Your task to perform on an android device: Empty the shopping cart on target. Add "bose quietcomfort 35" to the cart on target Image 0: 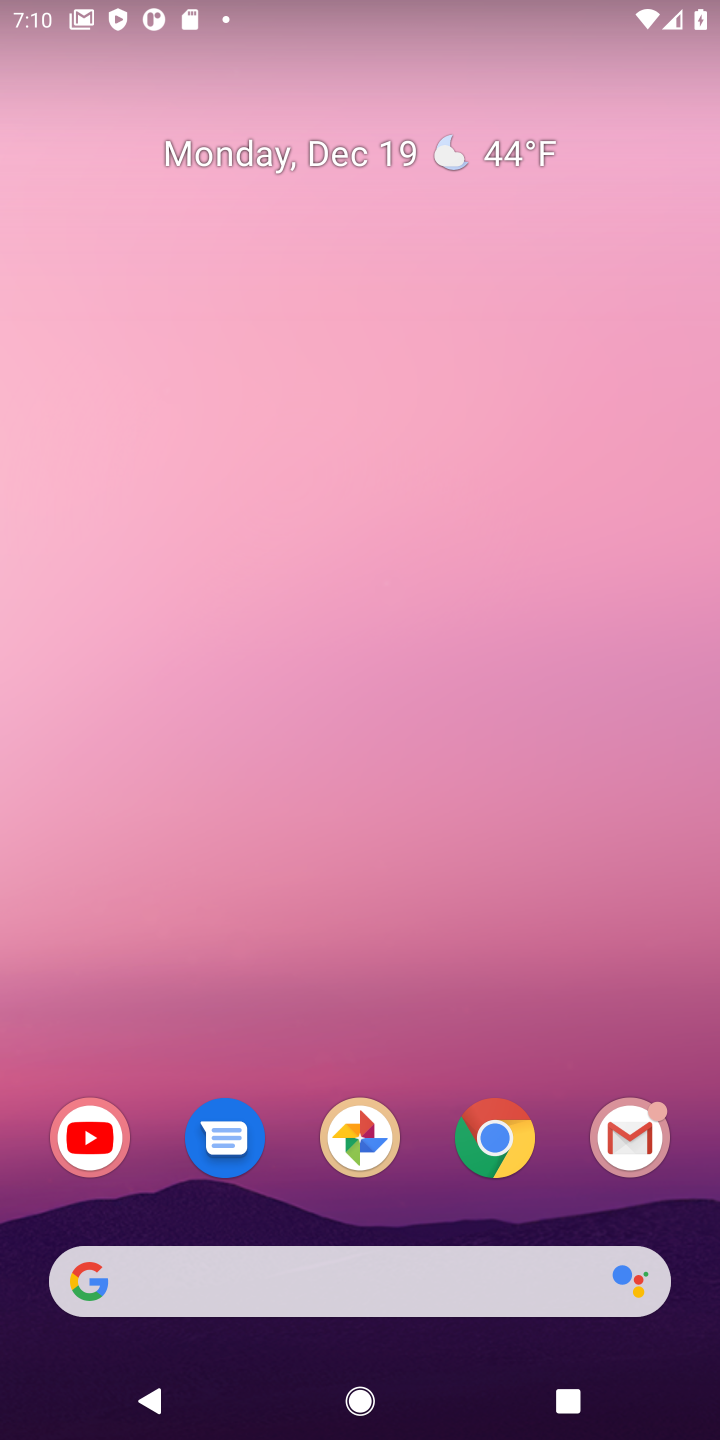
Step 0: click (514, 1146)
Your task to perform on an android device: Empty the shopping cart on target. Add "bose quietcomfort 35" to the cart on target Image 1: 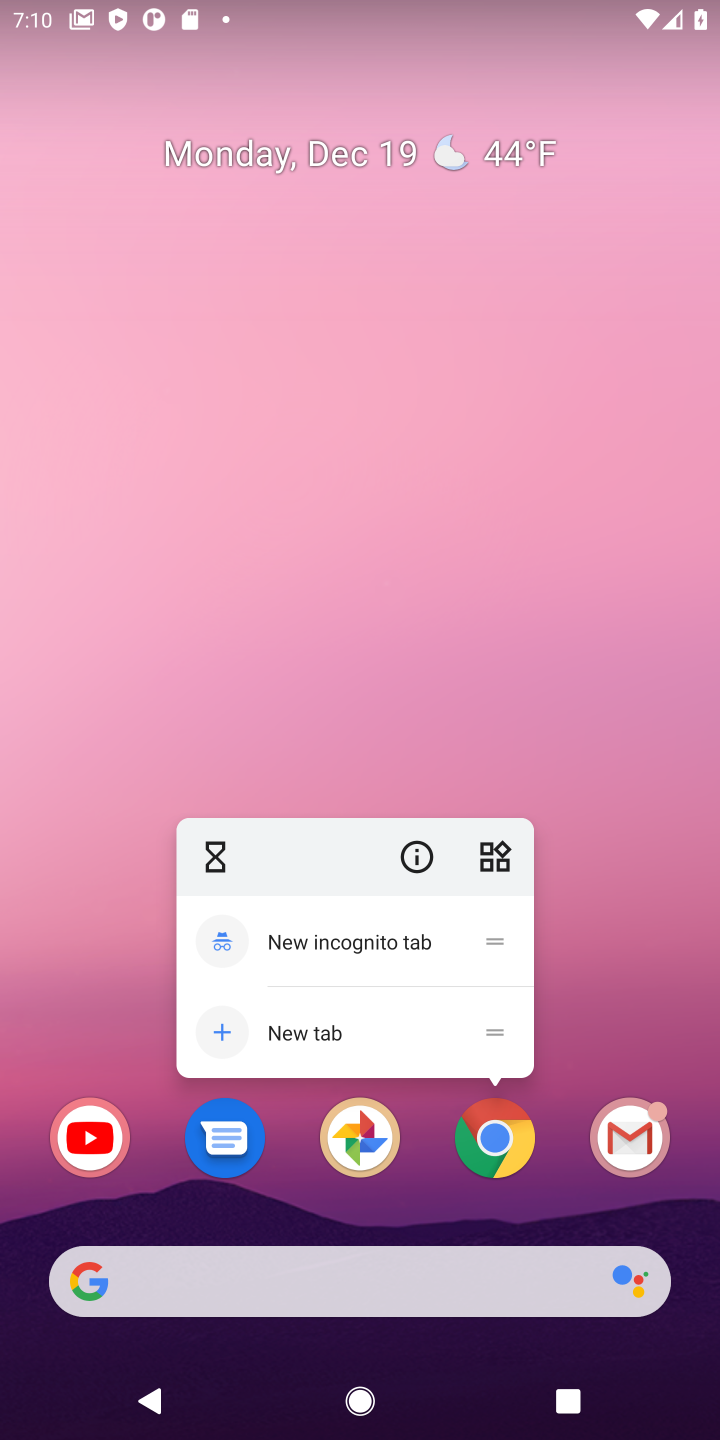
Step 1: click (493, 1140)
Your task to perform on an android device: Empty the shopping cart on target. Add "bose quietcomfort 35" to the cart on target Image 2: 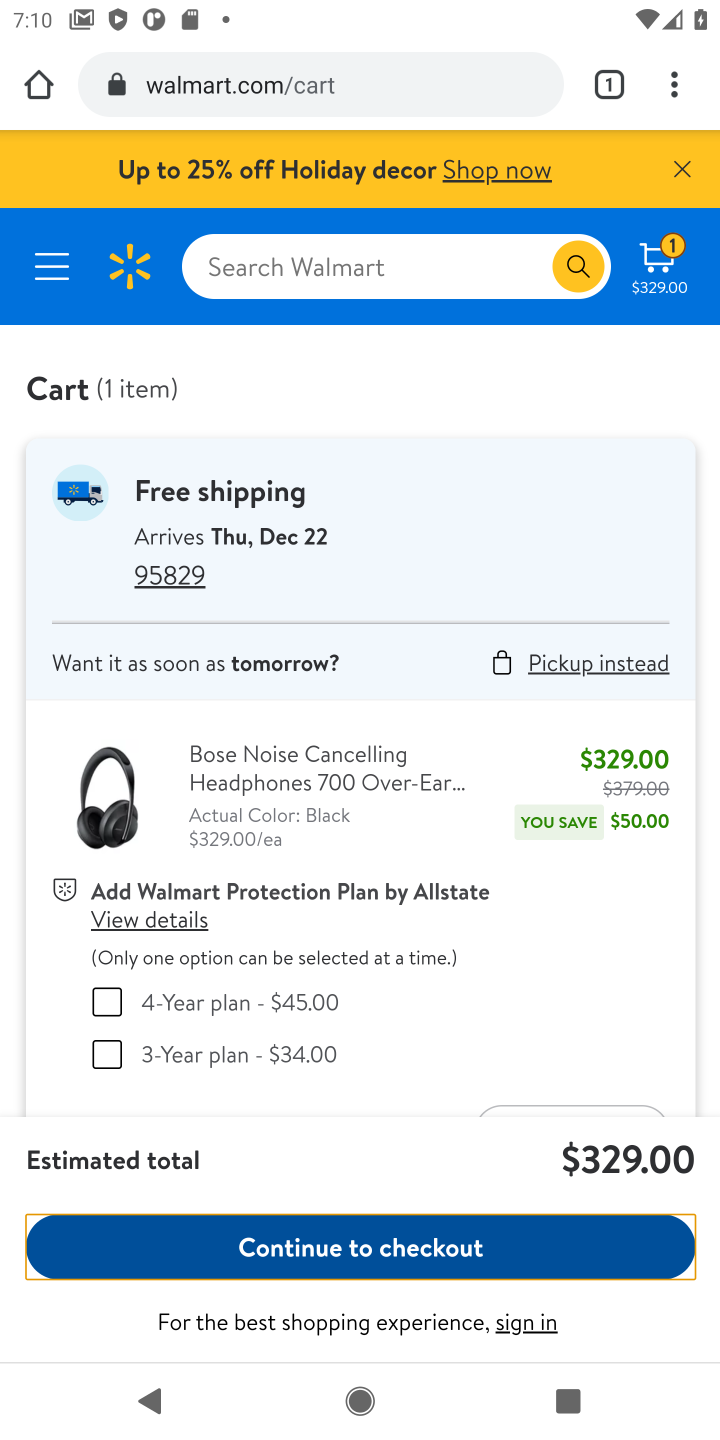
Step 2: click (331, 91)
Your task to perform on an android device: Empty the shopping cart on target. Add "bose quietcomfort 35" to the cart on target Image 3: 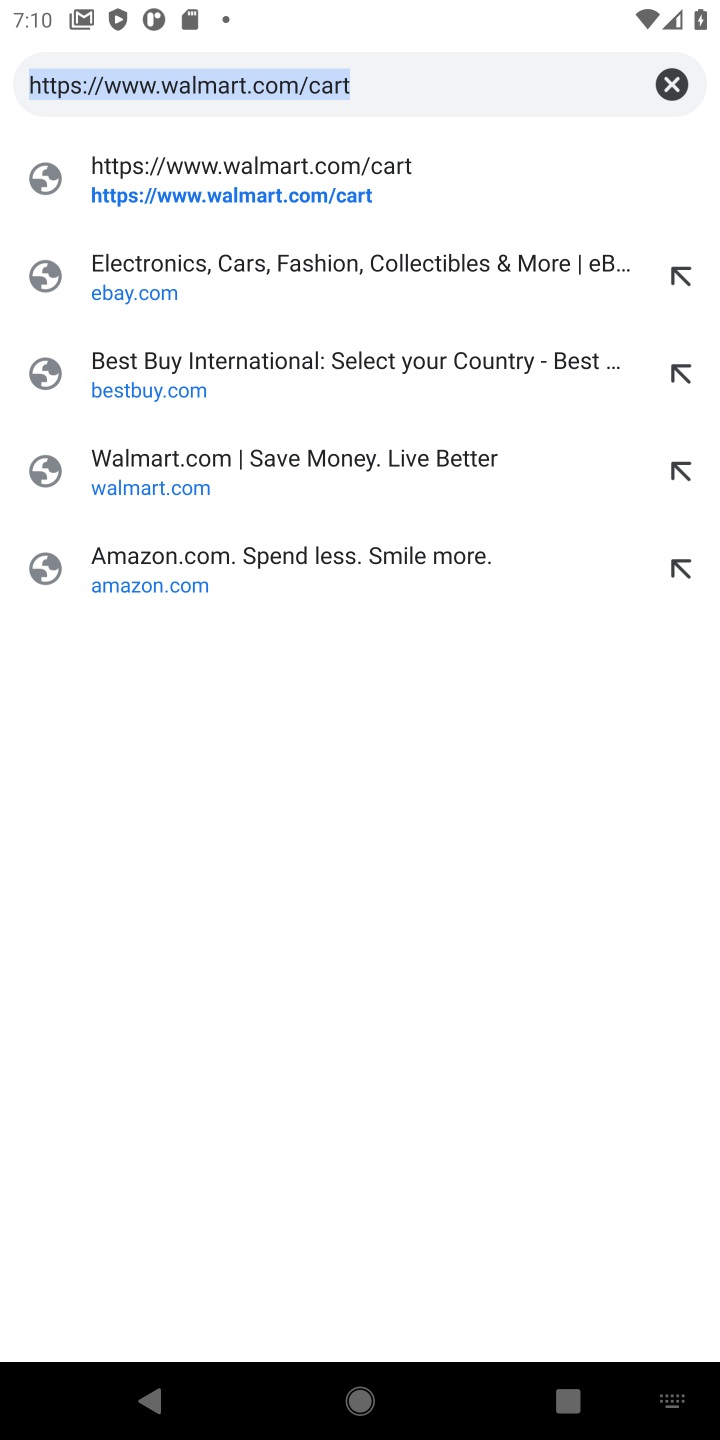
Step 3: type "TARGET"
Your task to perform on an android device: Empty the shopping cart on target. Add "bose quietcomfort 35" to the cart on target Image 4: 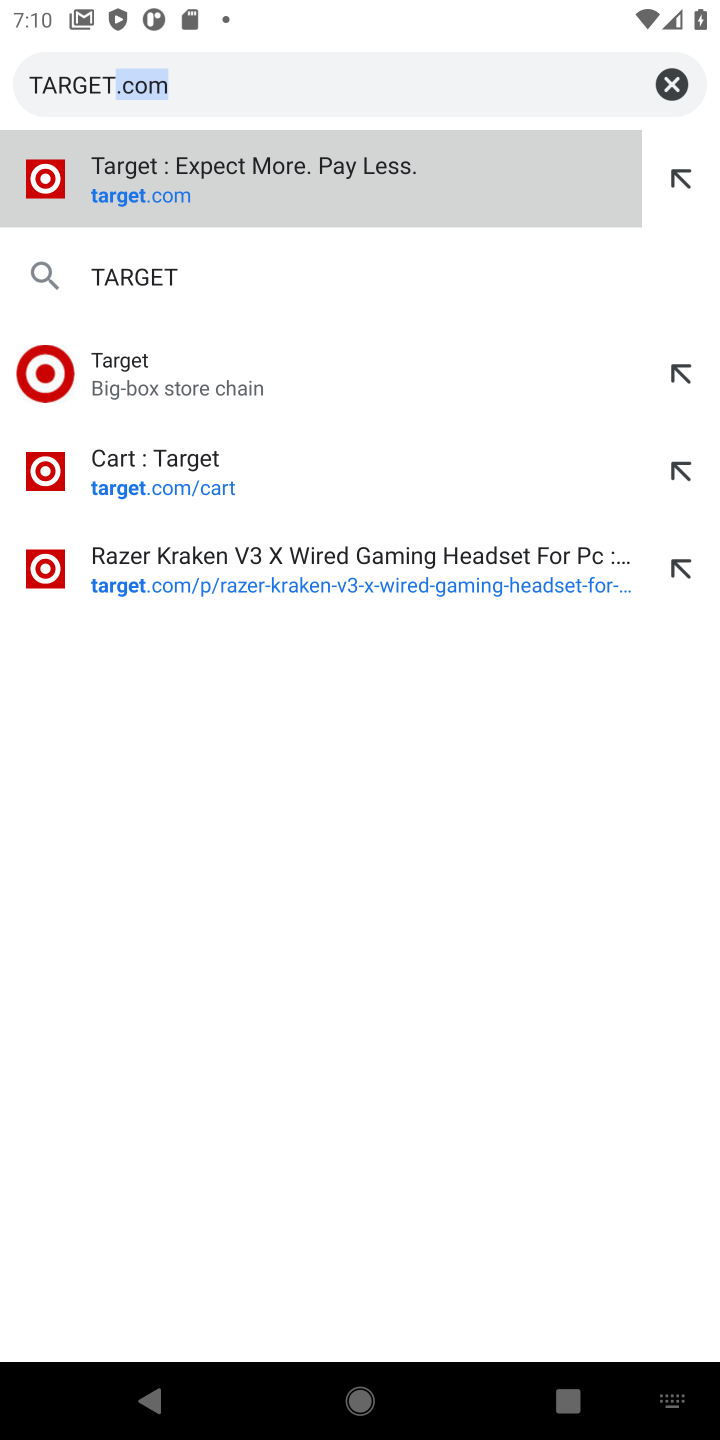
Step 4: click (307, 205)
Your task to perform on an android device: Empty the shopping cart on target. Add "bose quietcomfort 35" to the cart on target Image 5: 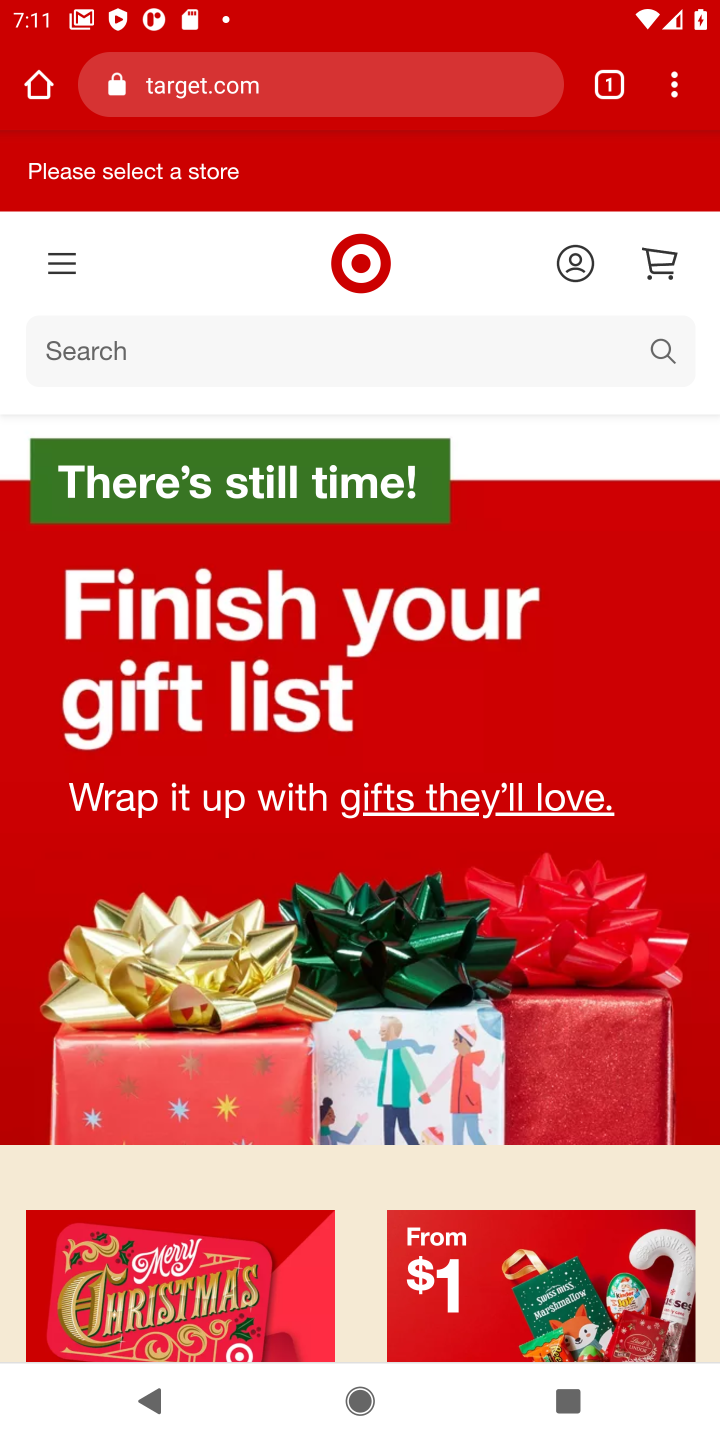
Step 5: click (440, 351)
Your task to perform on an android device: Empty the shopping cart on target. Add "bose quietcomfort 35" to the cart on target Image 6: 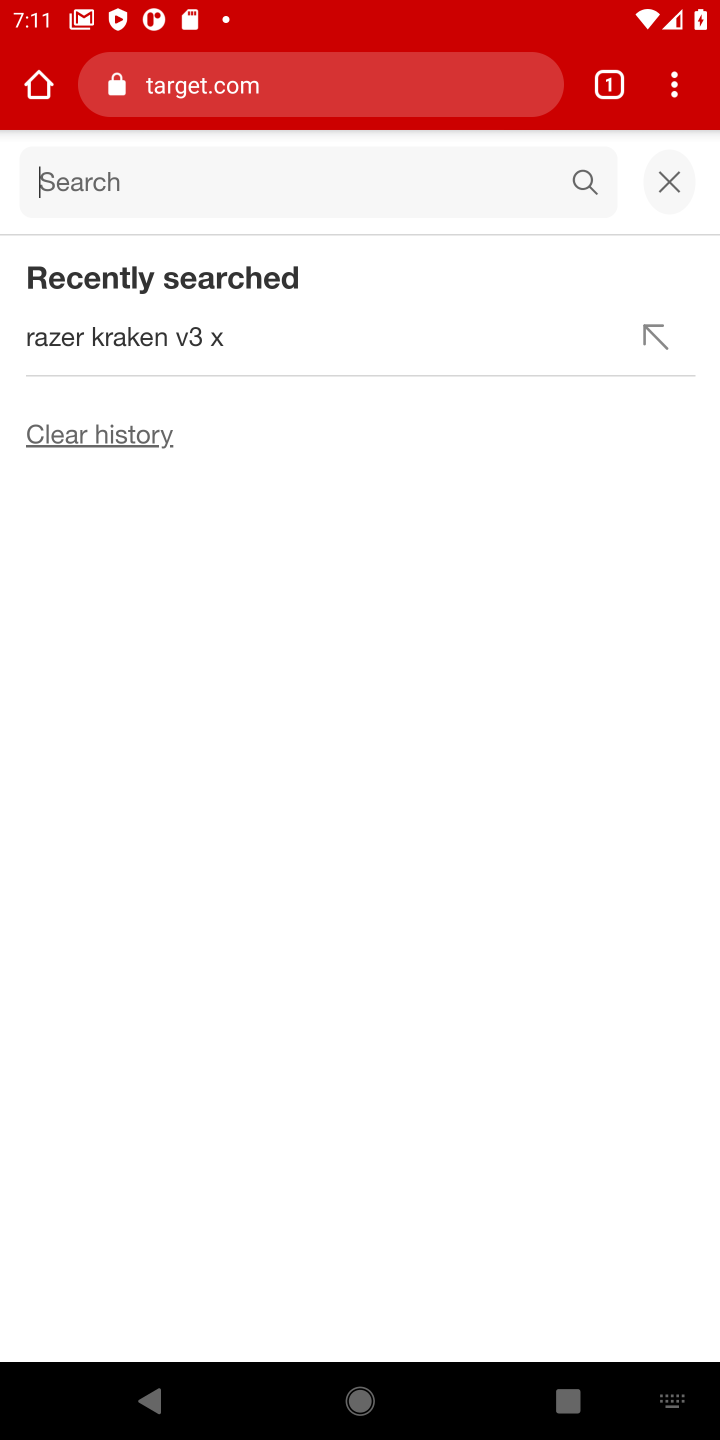
Step 6: type "bose quietcomfort 35"
Your task to perform on an android device: Empty the shopping cart on target. Add "bose quietcomfort 35" to the cart on target Image 7: 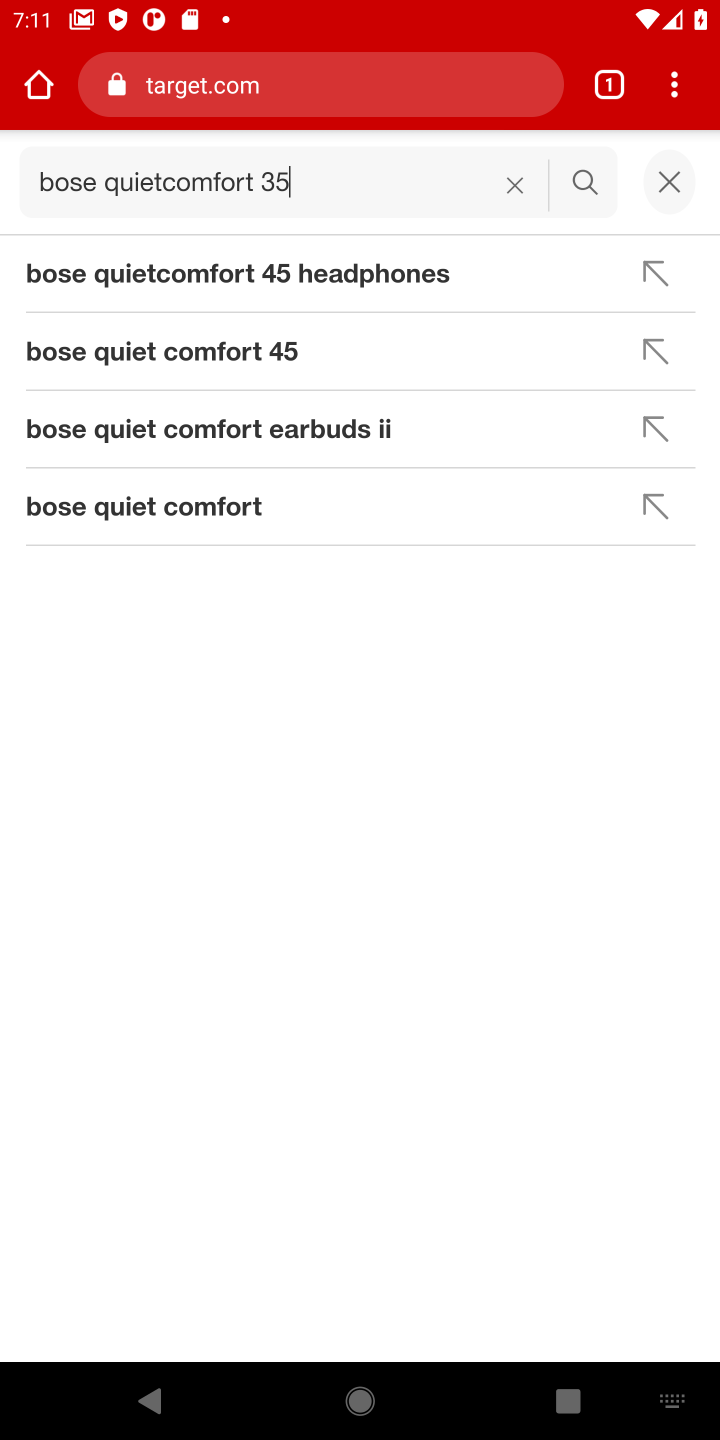
Step 7: click (579, 183)
Your task to perform on an android device: Empty the shopping cart on target. Add "bose quietcomfort 35" to the cart on target Image 8: 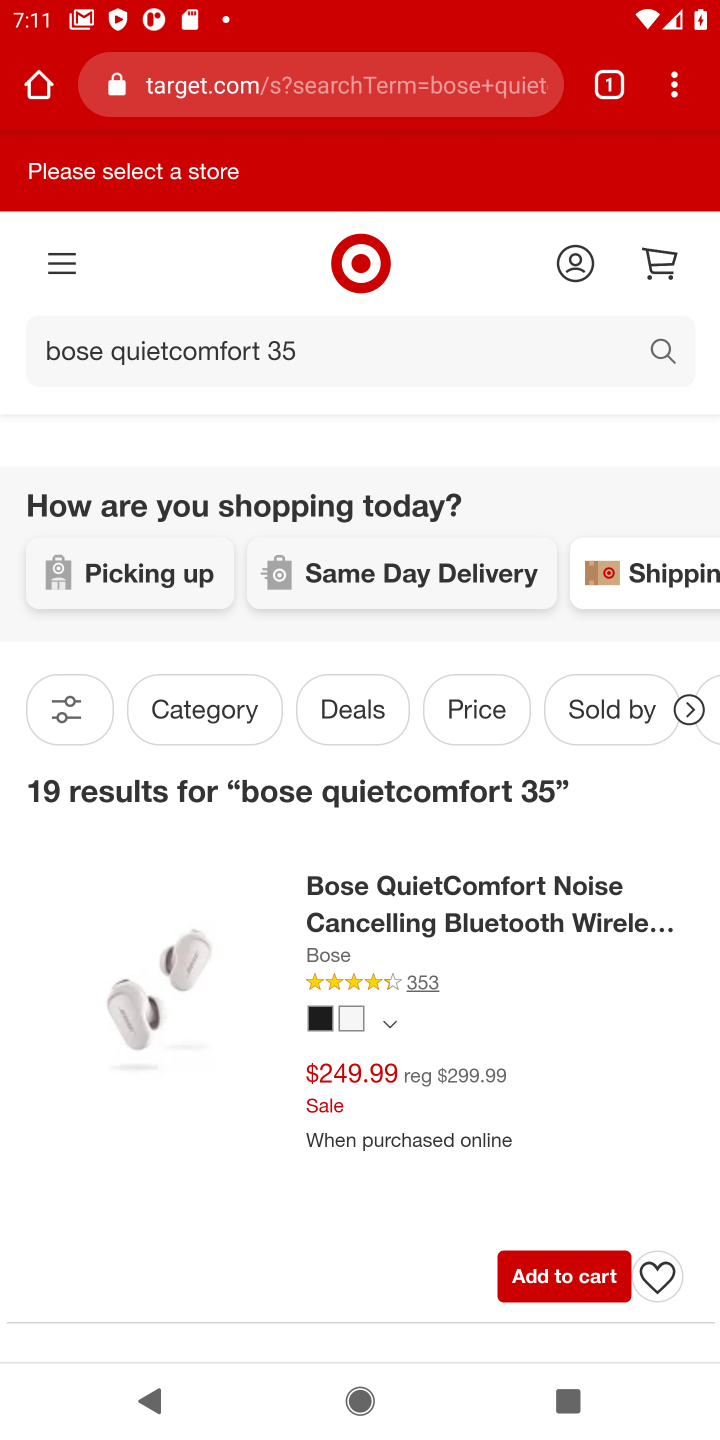
Step 8: click (564, 1280)
Your task to perform on an android device: Empty the shopping cart on target. Add "bose quietcomfort 35" to the cart on target Image 9: 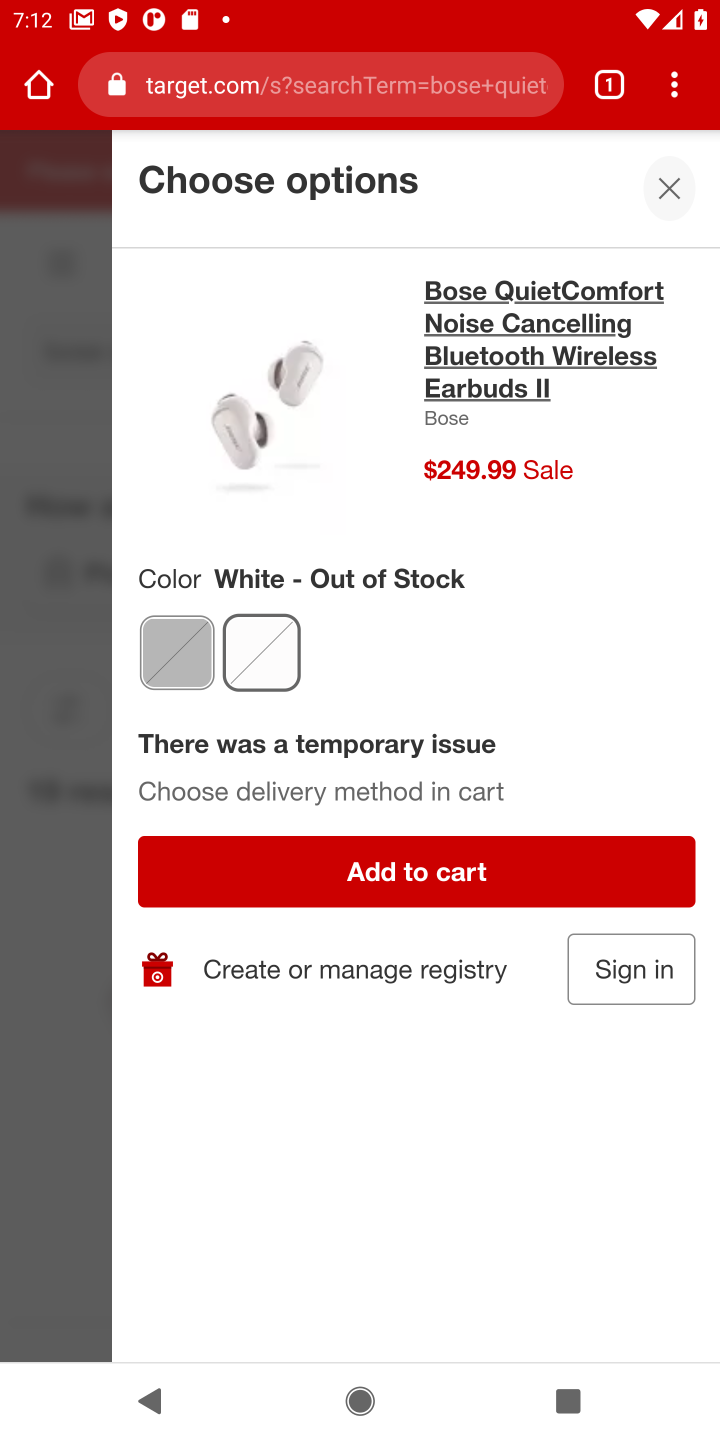
Step 9: click (490, 879)
Your task to perform on an android device: Empty the shopping cart on target. Add "bose quietcomfort 35" to the cart on target Image 10: 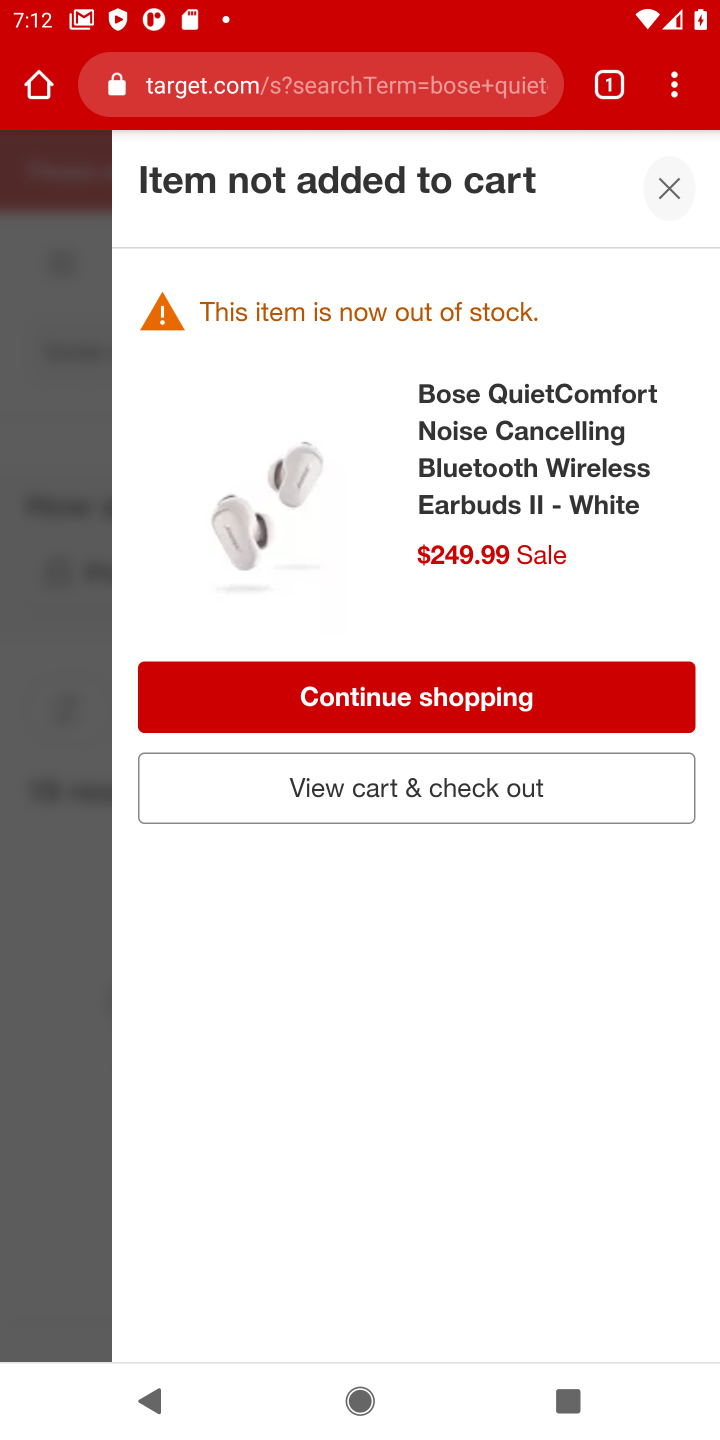
Step 10: click (489, 799)
Your task to perform on an android device: Empty the shopping cart on target. Add "bose quietcomfort 35" to the cart on target Image 11: 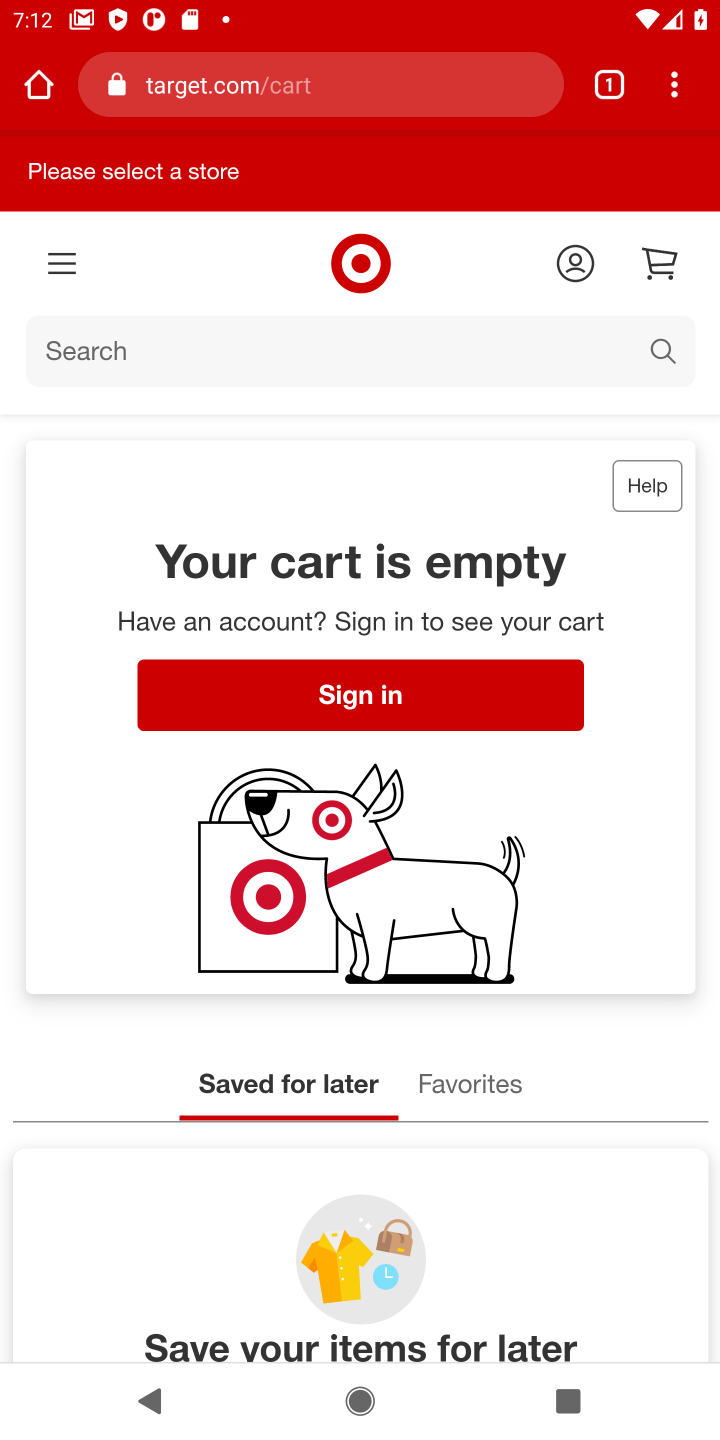
Step 11: click (557, 361)
Your task to perform on an android device: Empty the shopping cart on target. Add "bose quietcomfort 35" to the cart on target Image 12: 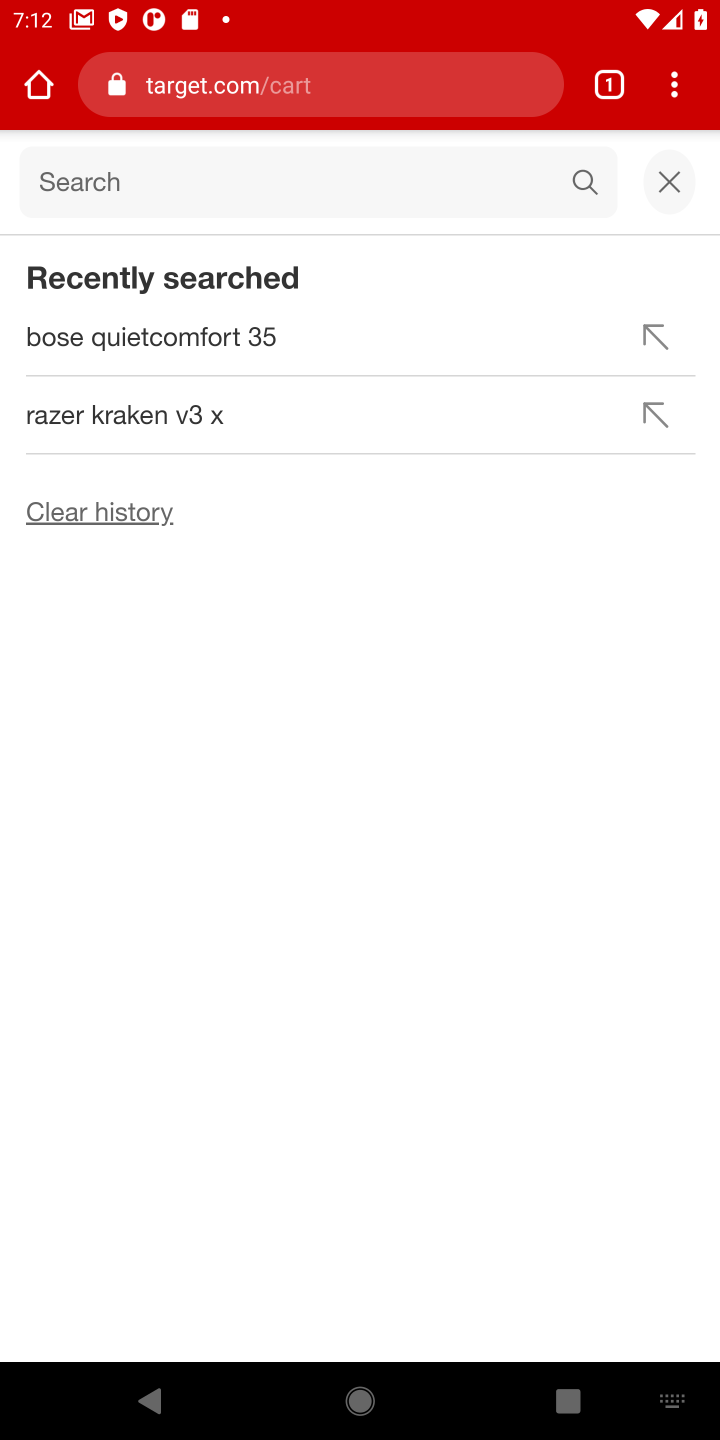
Step 12: click (674, 167)
Your task to perform on an android device: Empty the shopping cart on target. Add "bose quietcomfort 35" to the cart on target Image 13: 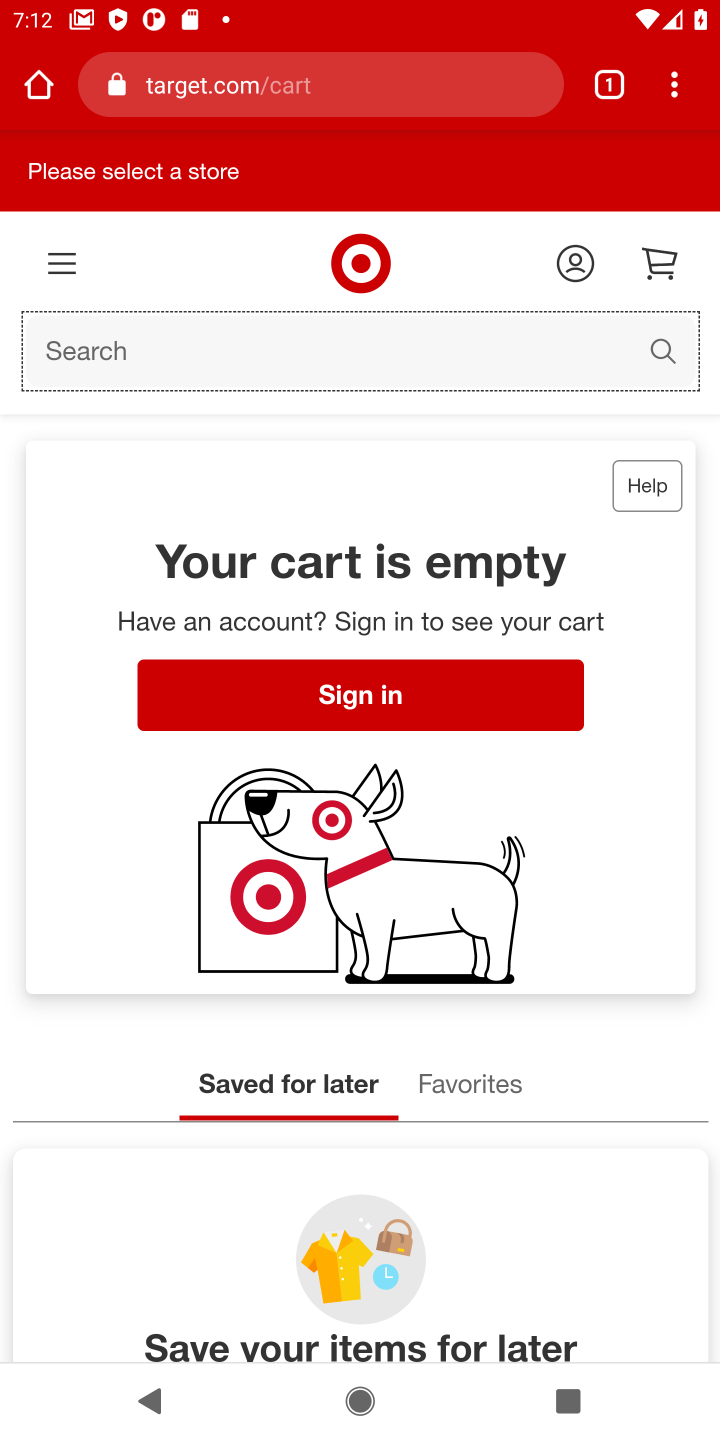
Step 13: task complete